Your task to perform on an android device: check data usage Image 0: 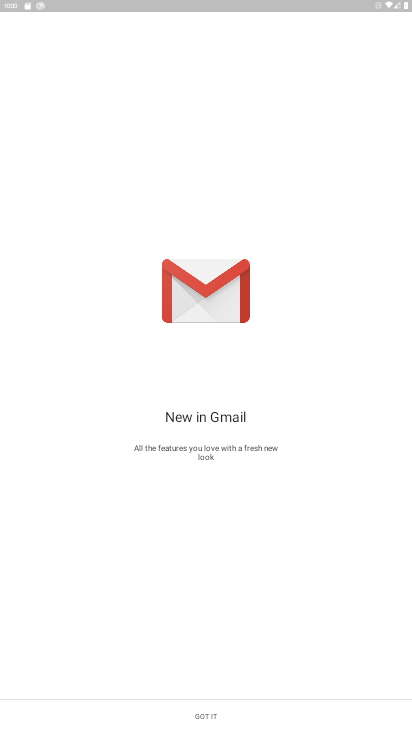
Step 0: press home button
Your task to perform on an android device: check data usage Image 1: 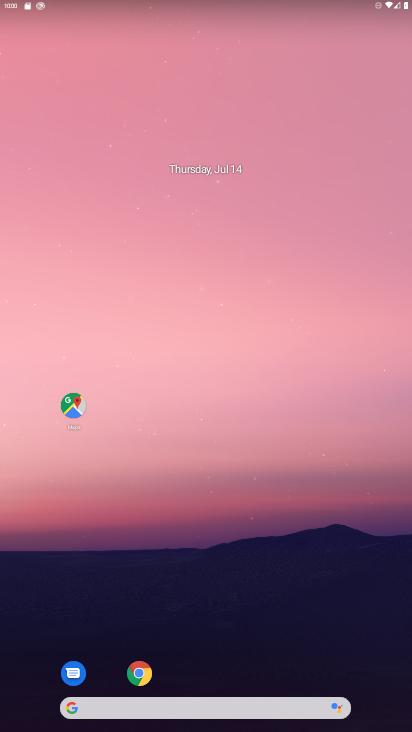
Step 1: drag from (226, 697) to (254, 0)
Your task to perform on an android device: check data usage Image 2: 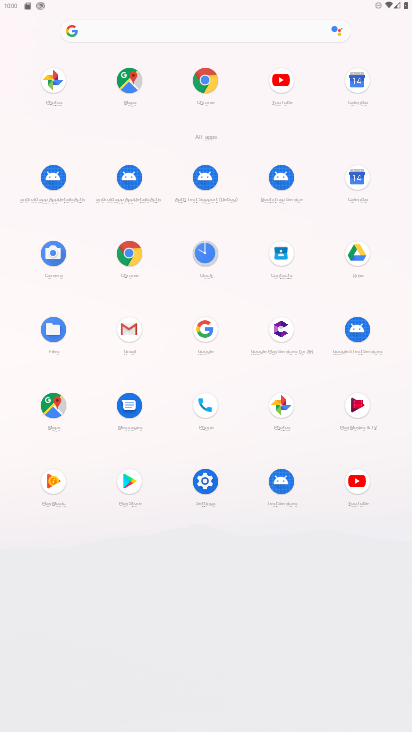
Step 2: click (202, 496)
Your task to perform on an android device: check data usage Image 3: 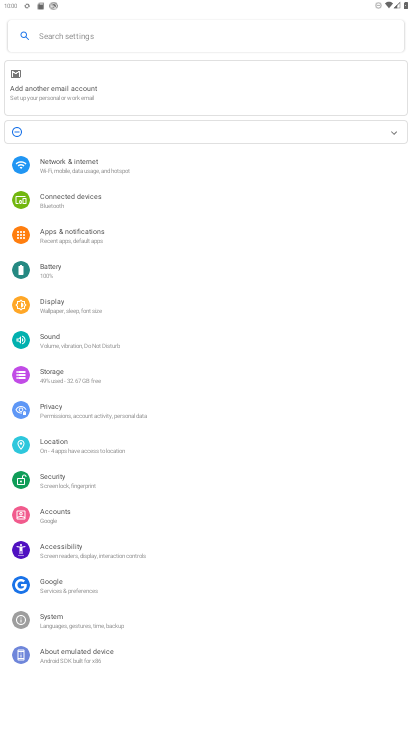
Step 3: click (50, 314)
Your task to perform on an android device: check data usage Image 4: 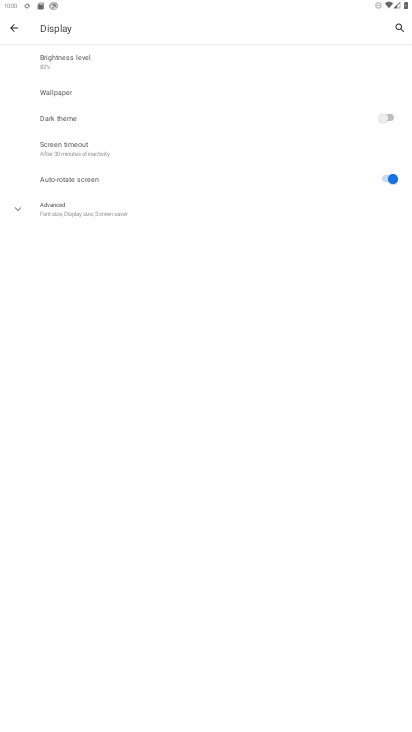
Step 4: click (113, 200)
Your task to perform on an android device: check data usage Image 5: 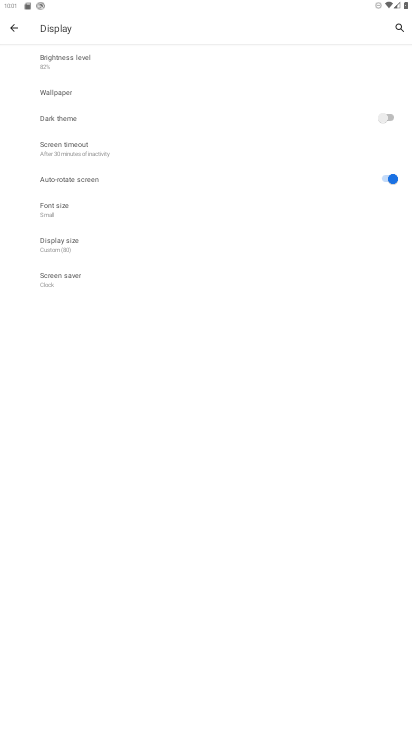
Step 5: click (73, 247)
Your task to perform on an android device: check data usage Image 6: 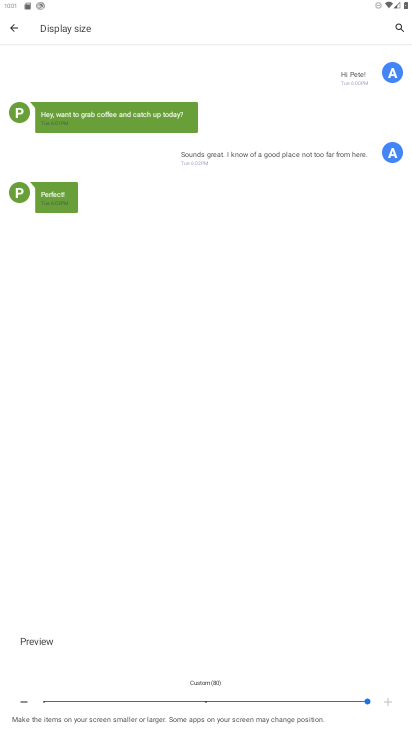
Step 6: click (41, 703)
Your task to perform on an android device: check data usage Image 7: 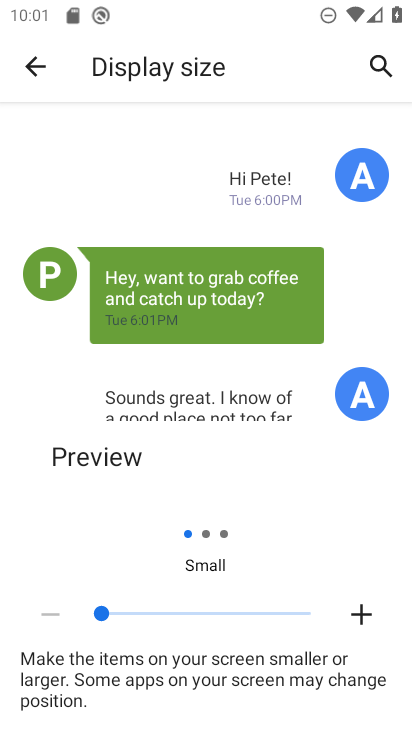
Step 7: task complete